Your task to perform on an android device: Is it going to rain today? Image 0: 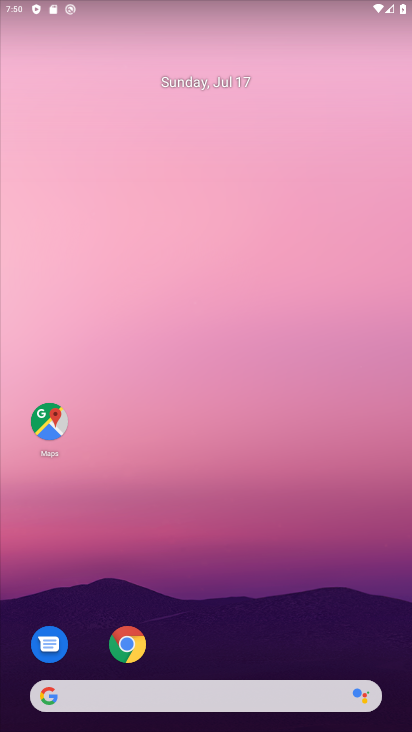
Step 0: click (124, 694)
Your task to perform on an android device: Is it going to rain today? Image 1: 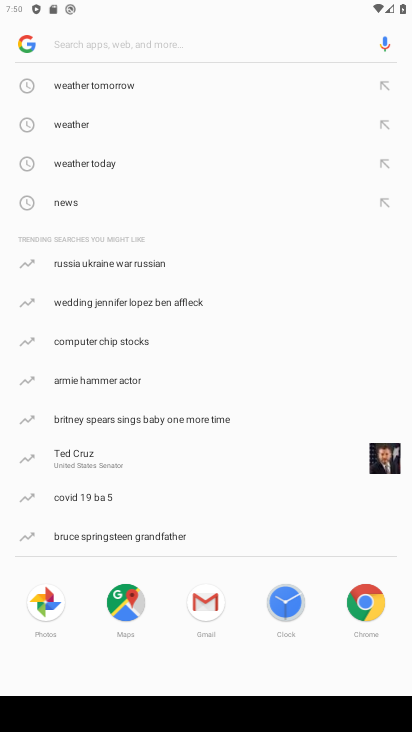
Step 1: type "is it going to rain today?"
Your task to perform on an android device: Is it going to rain today? Image 2: 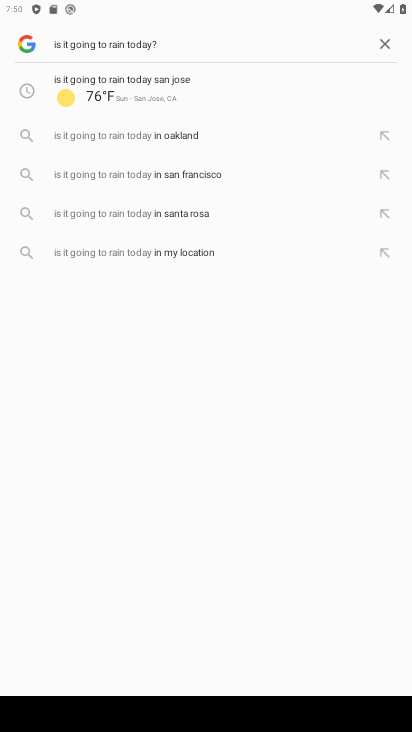
Step 2: click (68, 79)
Your task to perform on an android device: Is it going to rain today? Image 3: 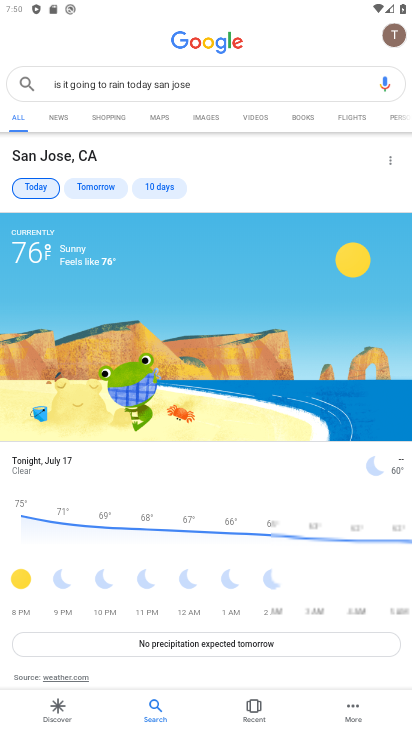
Step 3: task complete